Your task to perform on an android device: Open Amazon Image 0: 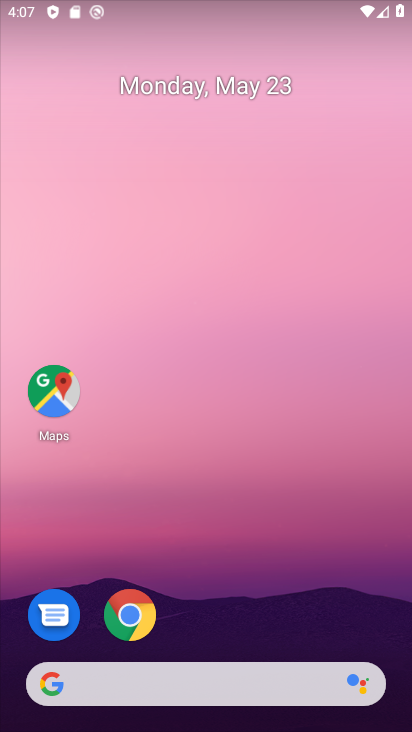
Step 0: click (140, 614)
Your task to perform on an android device: Open Amazon Image 1: 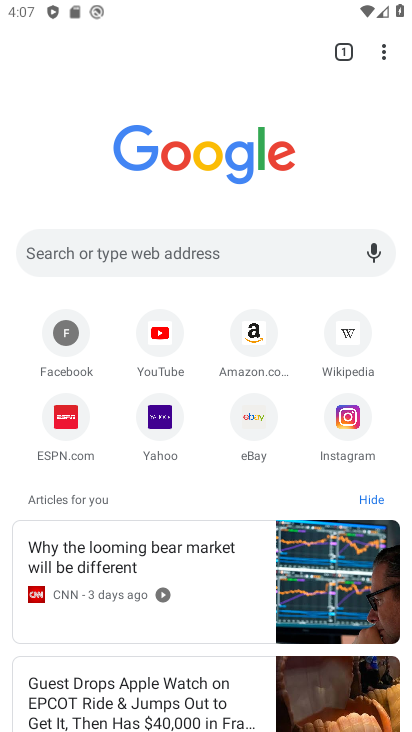
Step 1: click (256, 336)
Your task to perform on an android device: Open Amazon Image 2: 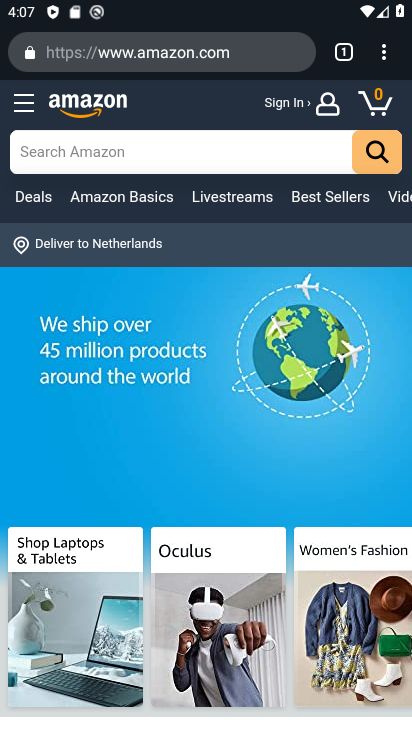
Step 2: task complete